Your task to perform on an android device: What's on my calendar tomorrow? Image 0: 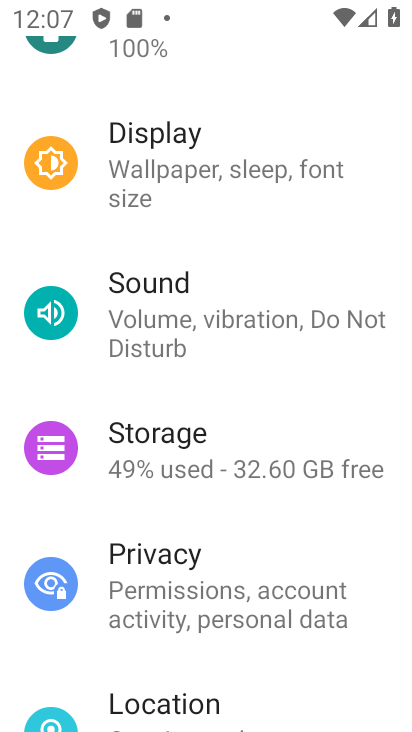
Step 0: press home button
Your task to perform on an android device: What's on my calendar tomorrow? Image 1: 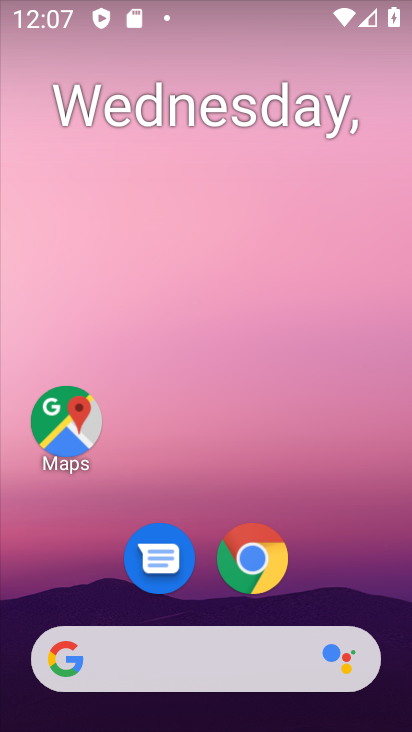
Step 1: drag from (175, 639) to (302, 195)
Your task to perform on an android device: What's on my calendar tomorrow? Image 2: 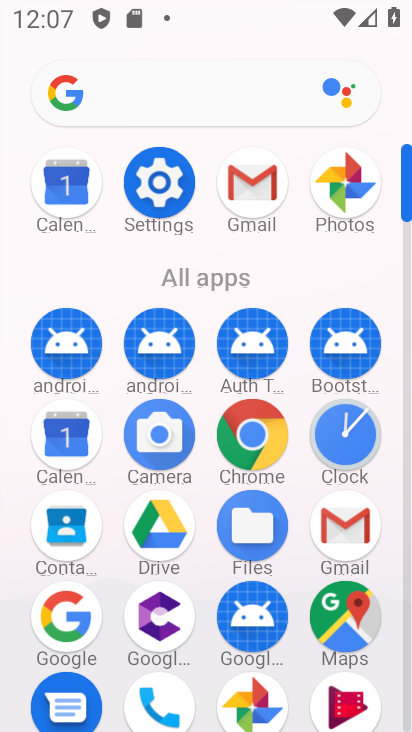
Step 2: click (72, 445)
Your task to perform on an android device: What's on my calendar tomorrow? Image 3: 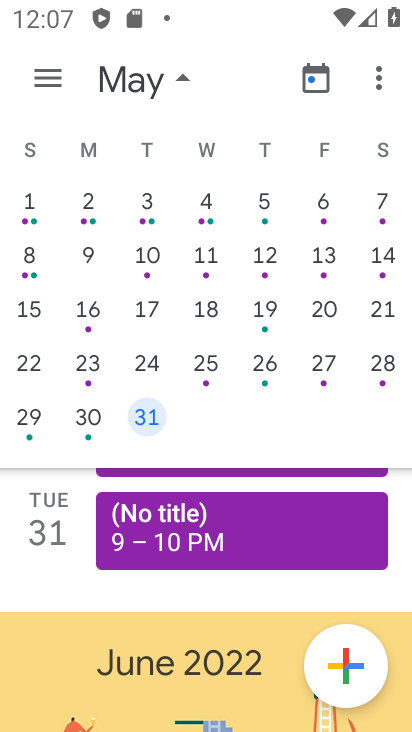
Step 3: task complete